Your task to perform on an android device: check battery use Image 0: 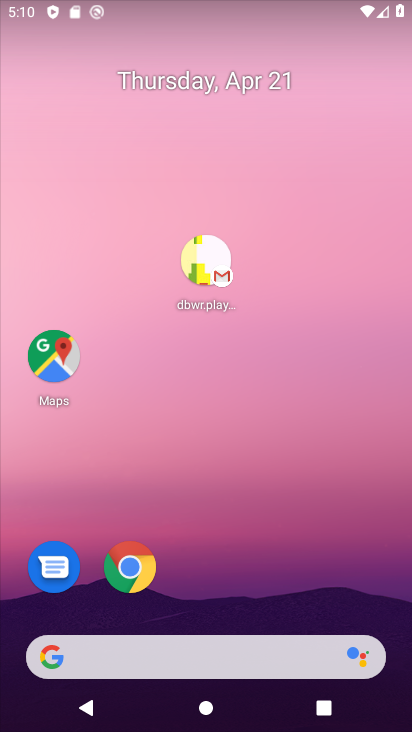
Step 0: click (340, 157)
Your task to perform on an android device: check battery use Image 1: 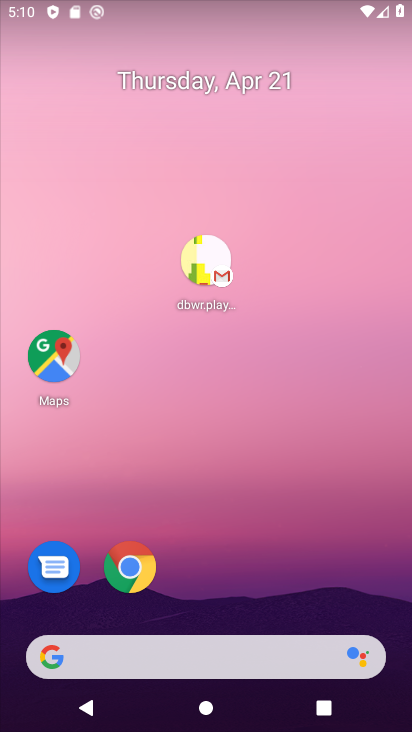
Step 1: drag from (197, 614) to (276, 32)
Your task to perform on an android device: check battery use Image 2: 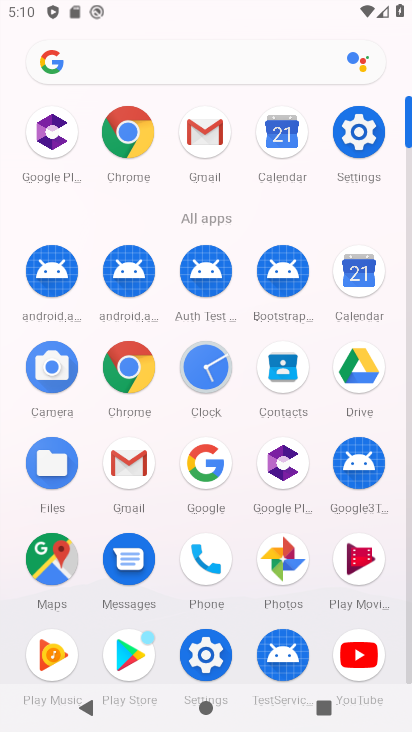
Step 2: click (361, 154)
Your task to perform on an android device: check battery use Image 3: 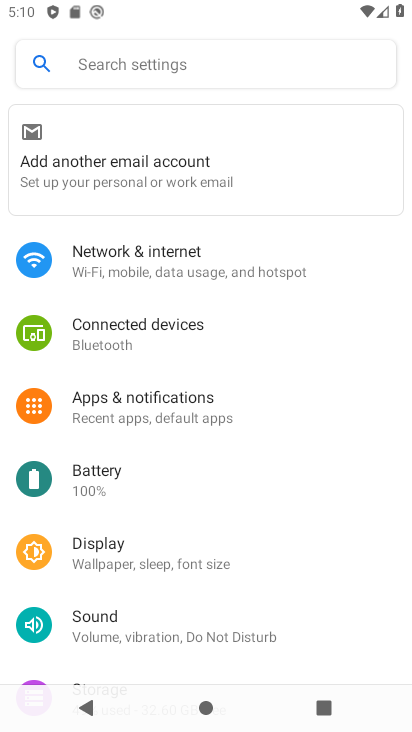
Step 3: click (110, 490)
Your task to perform on an android device: check battery use Image 4: 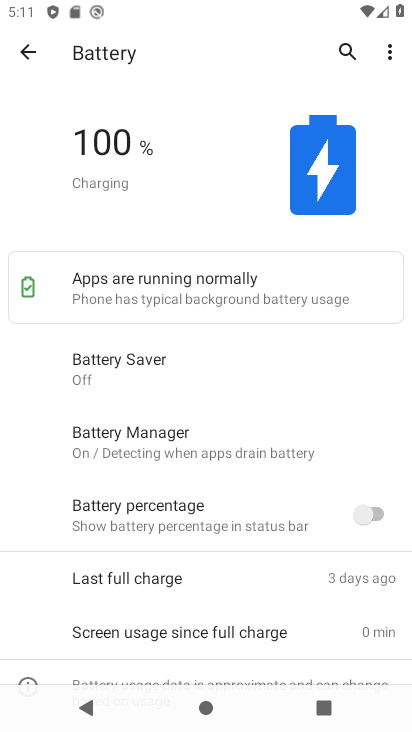
Step 4: click (383, 53)
Your task to perform on an android device: check battery use Image 5: 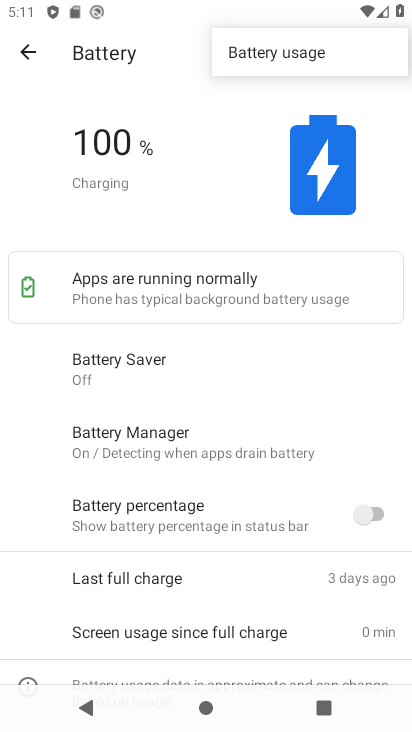
Step 5: click (262, 49)
Your task to perform on an android device: check battery use Image 6: 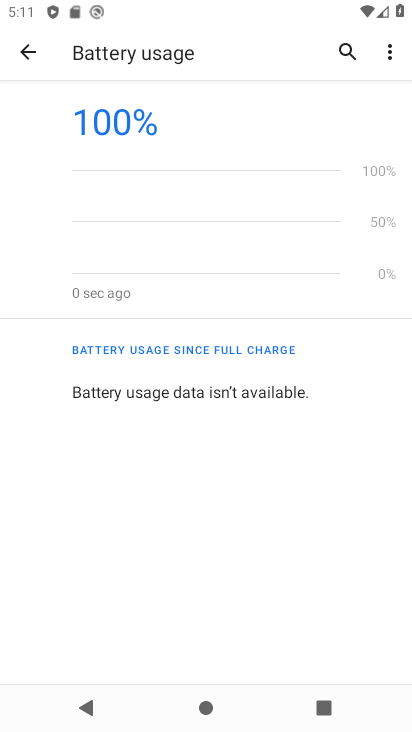
Step 6: task complete